Your task to perform on an android device: Show me recent news Image 0: 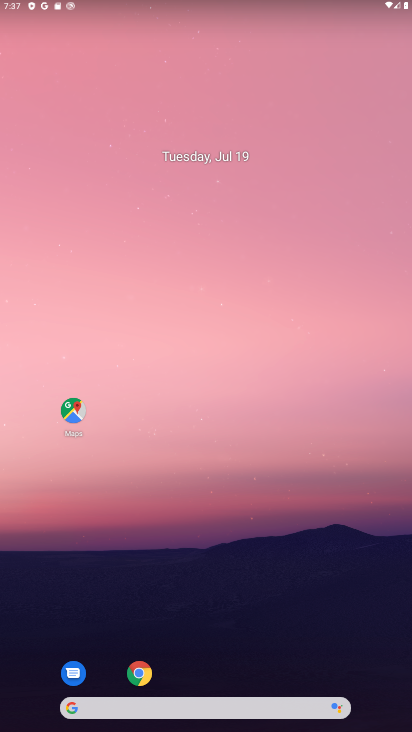
Step 0: drag from (286, 667) to (251, 424)
Your task to perform on an android device: Show me recent news Image 1: 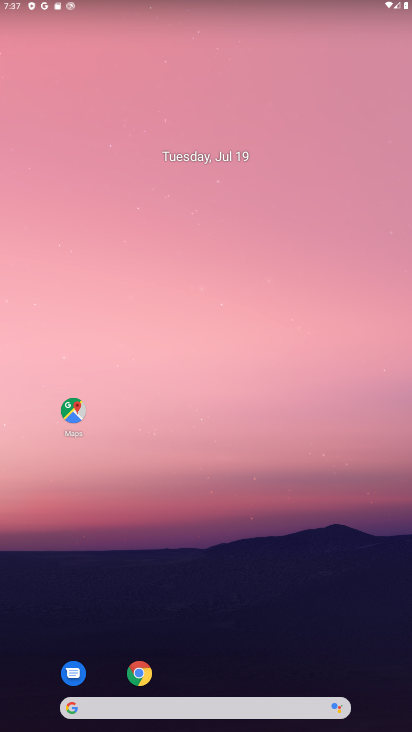
Step 1: click (209, 712)
Your task to perform on an android device: Show me recent news Image 2: 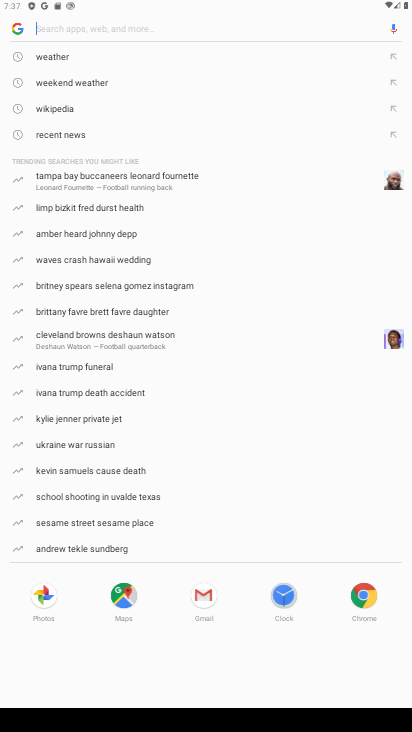
Step 2: type "news"
Your task to perform on an android device: Show me recent news Image 3: 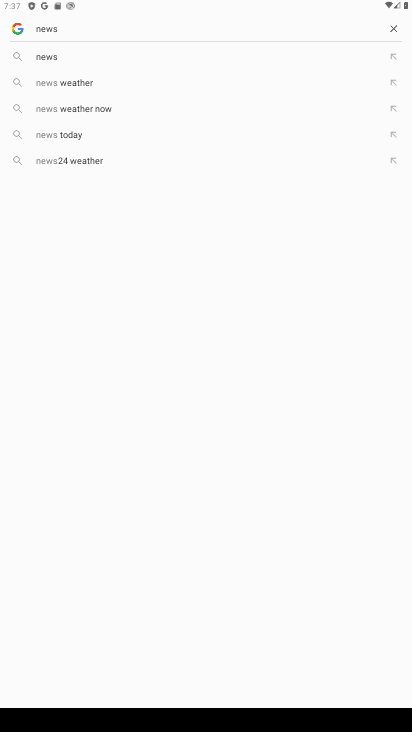
Step 3: click (152, 47)
Your task to perform on an android device: Show me recent news Image 4: 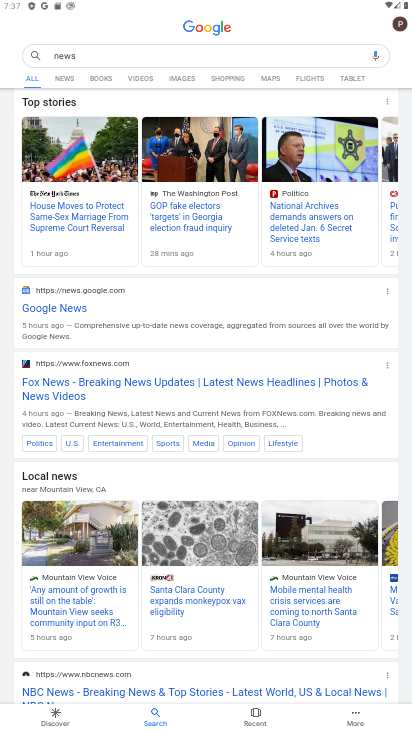
Step 4: task complete